Your task to perform on an android device: What time is it in Sydney? Image 0: 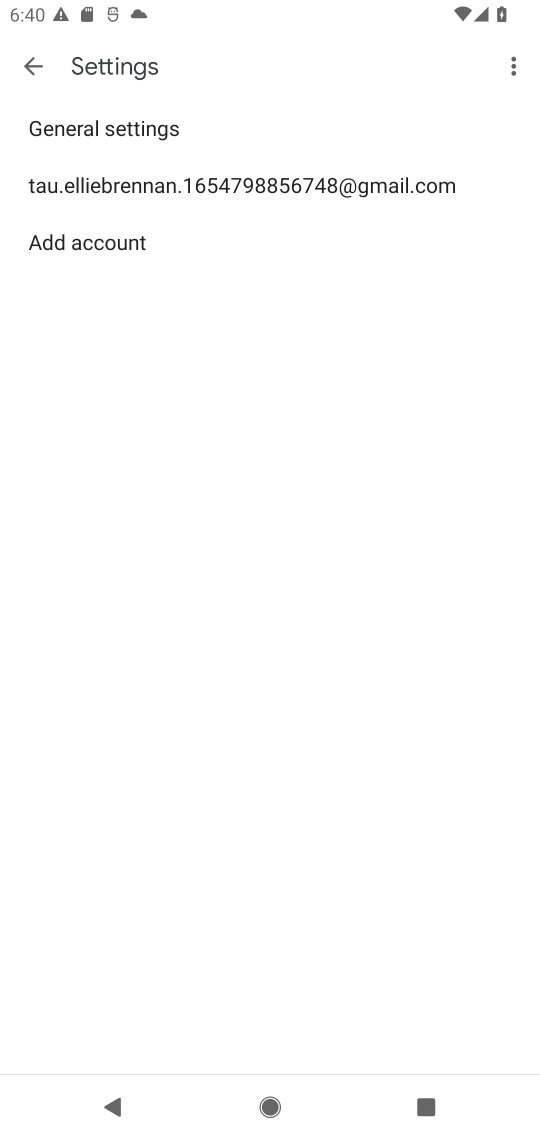
Step 0: press home button
Your task to perform on an android device: What time is it in Sydney? Image 1: 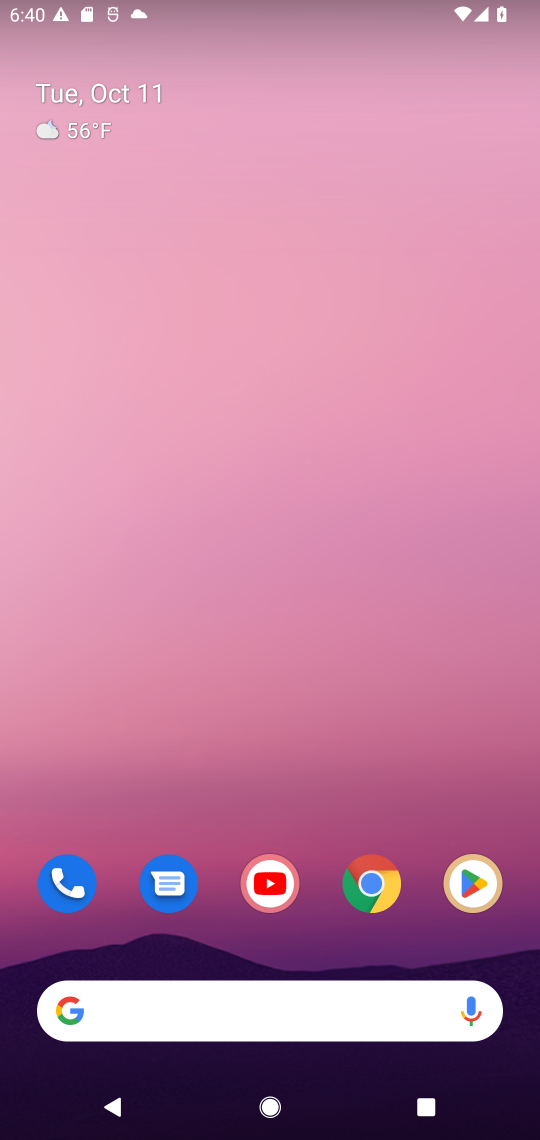
Step 1: drag from (344, 918) to (325, 54)
Your task to perform on an android device: What time is it in Sydney? Image 2: 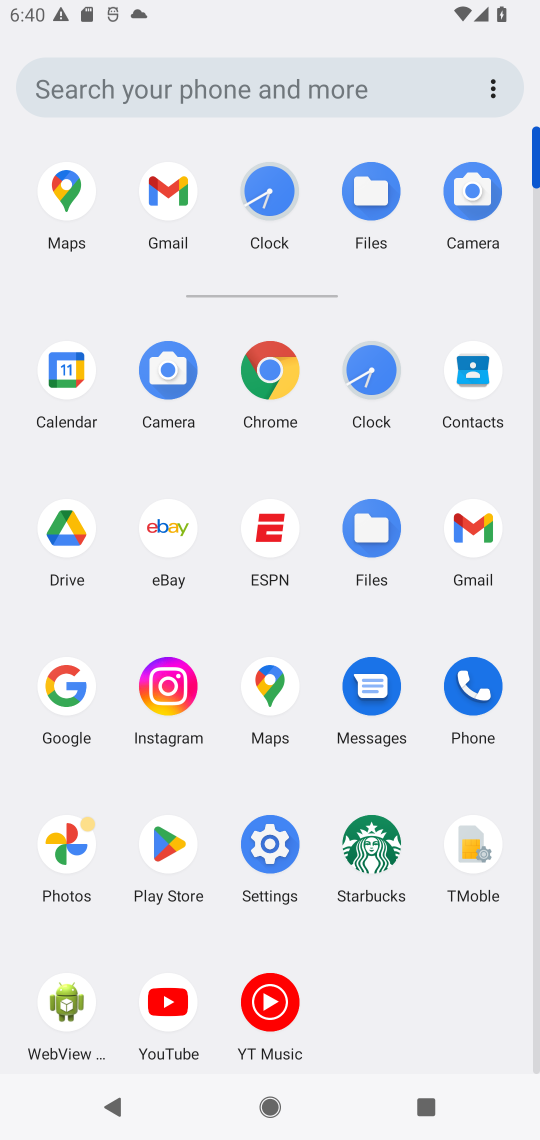
Step 2: click (276, 375)
Your task to perform on an android device: What time is it in Sydney? Image 3: 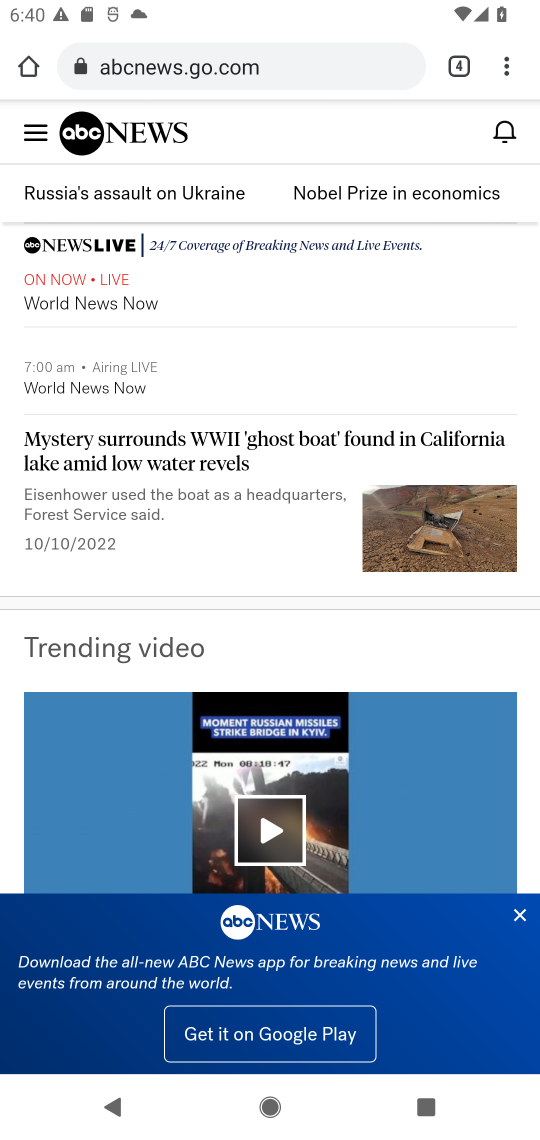
Step 3: click (284, 74)
Your task to perform on an android device: What time is it in Sydney? Image 4: 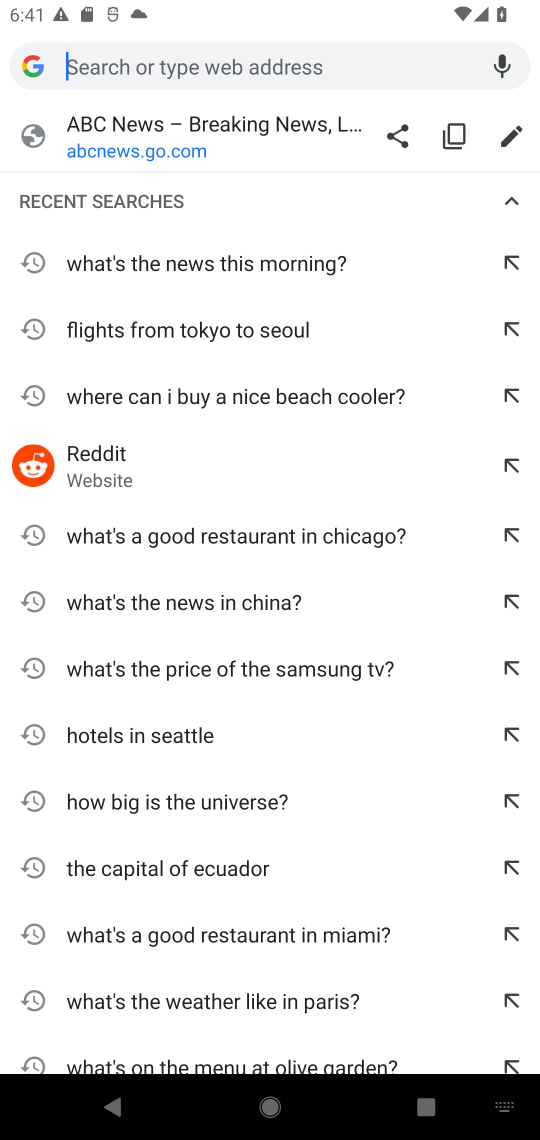
Step 4: type "What time is it in Sydney?"
Your task to perform on an android device: What time is it in Sydney? Image 5: 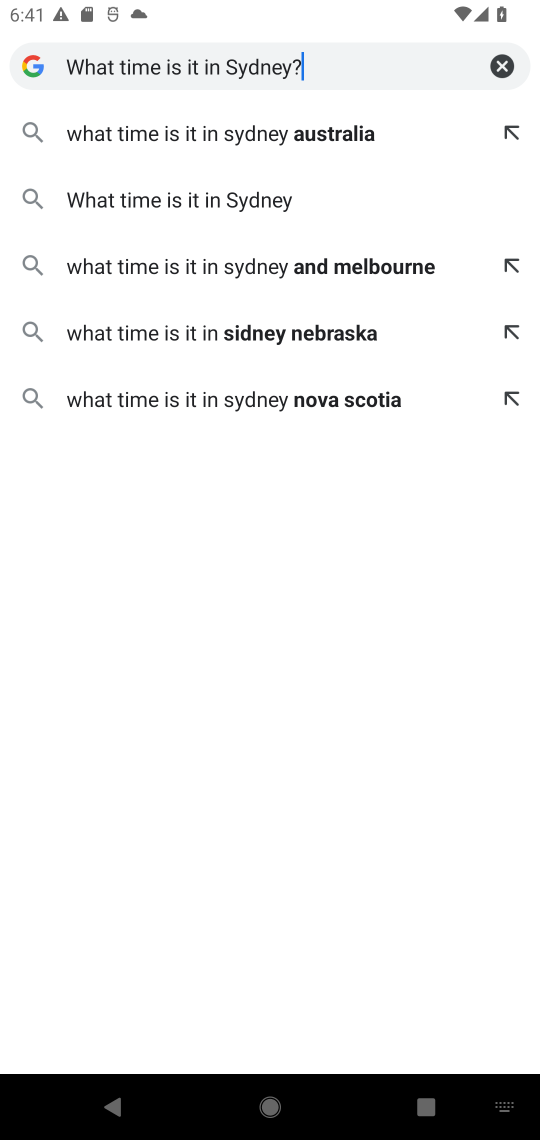
Step 5: press enter
Your task to perform on an android device: What time is it in Sydney? Image 6: 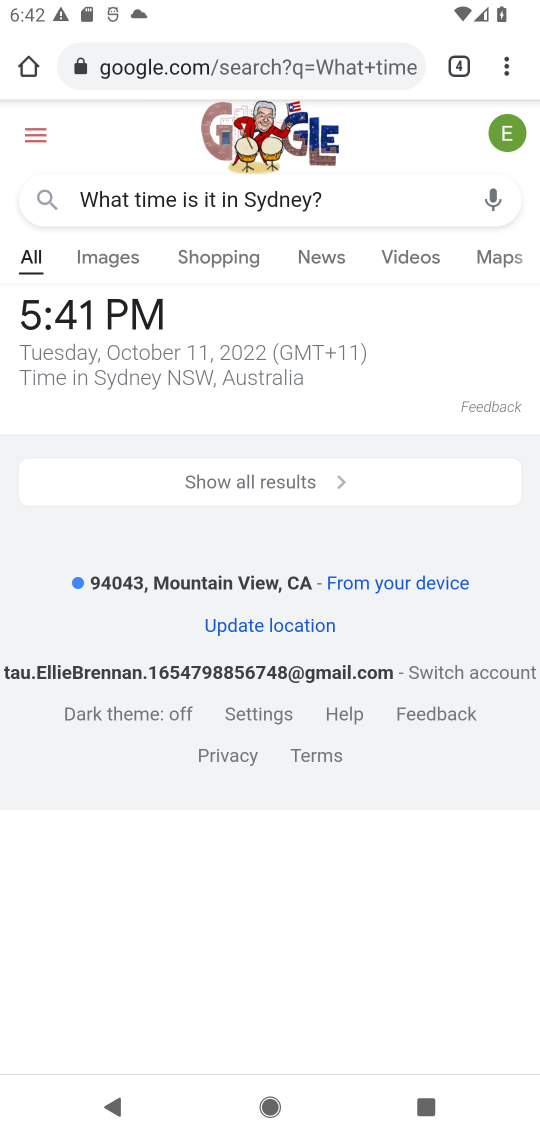
Step 6: task complete